Your task to perform on an android device: Open sound settings Image 0: 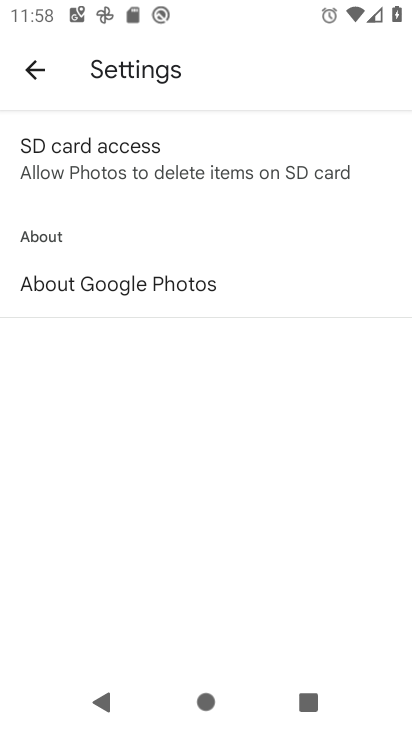
Step 0: press home button
Your task to perform on an android device: Open sound settings Image 1: 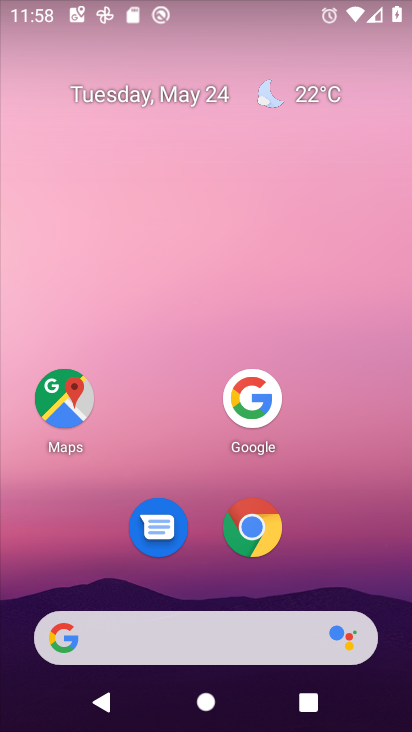
Step 1: drag from (218, 631) to (298, 12)
Your task to perform on an android device: Open sound settings Image 2: 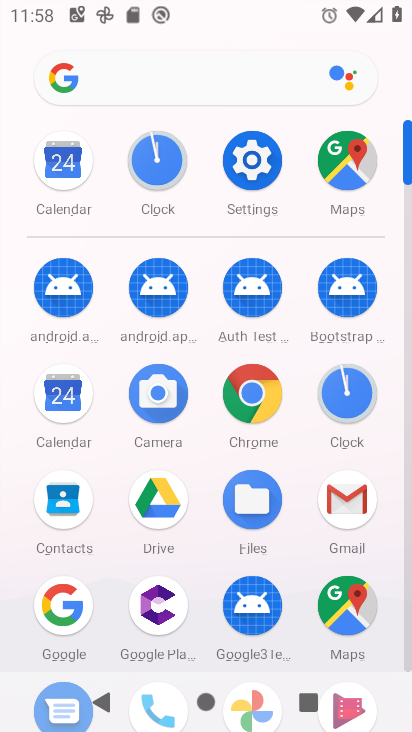
Step 2: click (250, 167)
Your task to perform on an android device: Open sound settings Image 3: 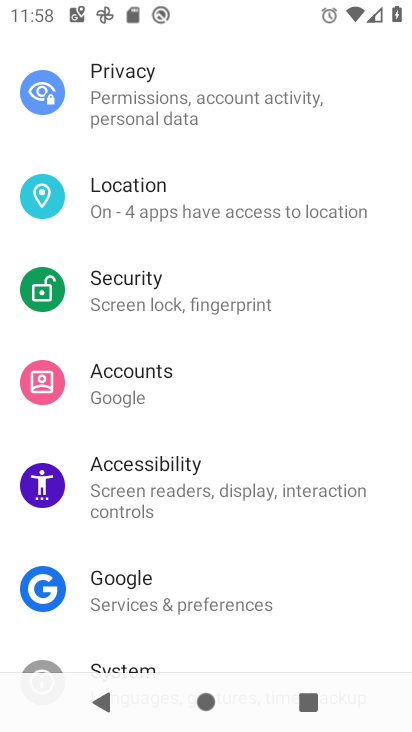
Step 3: drag from (256, 162) to (219, 575)
Your task to perform on an android device: Open sound settings Image 4: 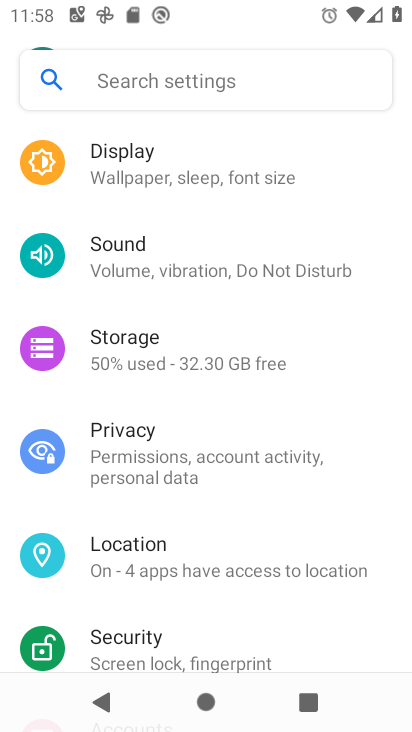
Step 4: drag from (276, 200) to (210, 552)
Your task to perform on an android device: Open sound settings Image 5: 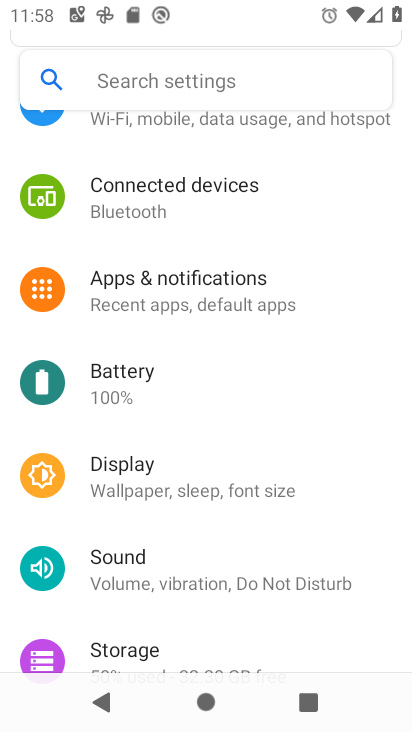
Step 5: click (116, 564)
Your task to perform on an android device: Open sound settings Image 6: 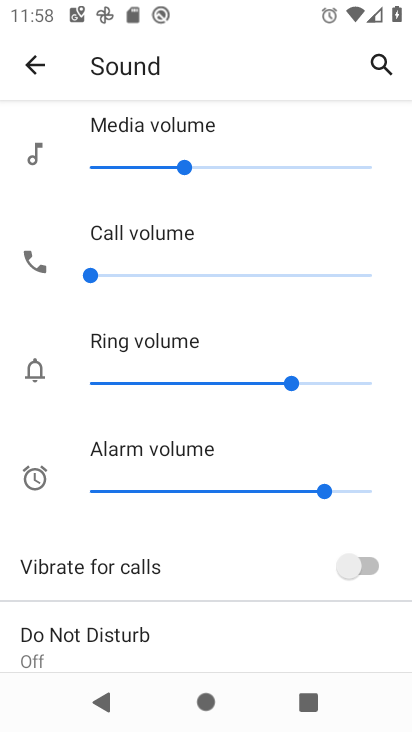
Step 6: task complete